Your task to perform on an android device: Search for Mexican restaurants on Maps Image 0: 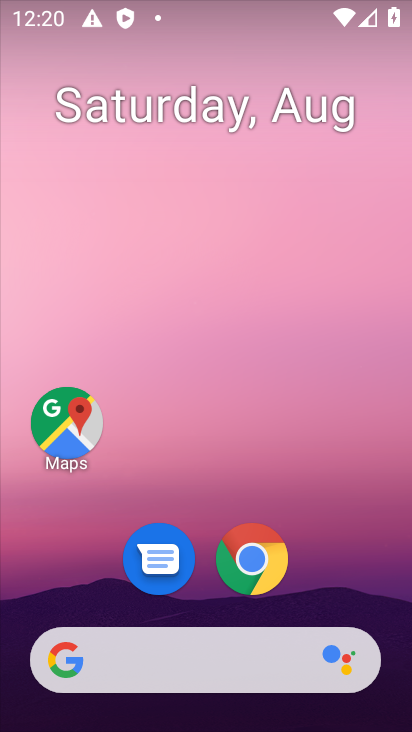
Step 0: click (80, 425)
Your task to perform on an android device: Search for Mexican restaurants on Maps Image 1: 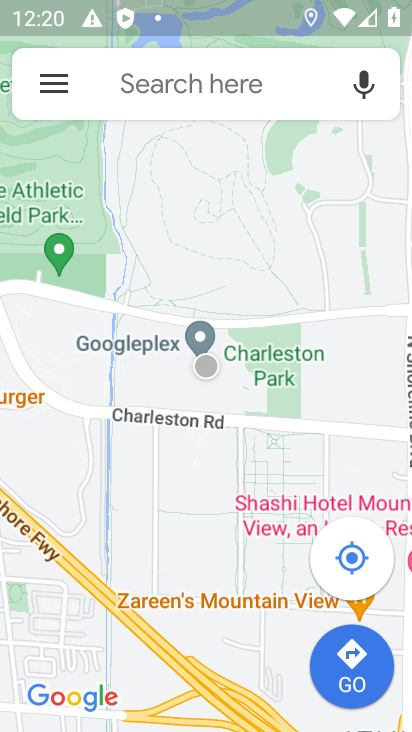
Step 1: click (200, 71)
Your task to perform on an android device: Search for Mexican restaurants on Maps Image 2: 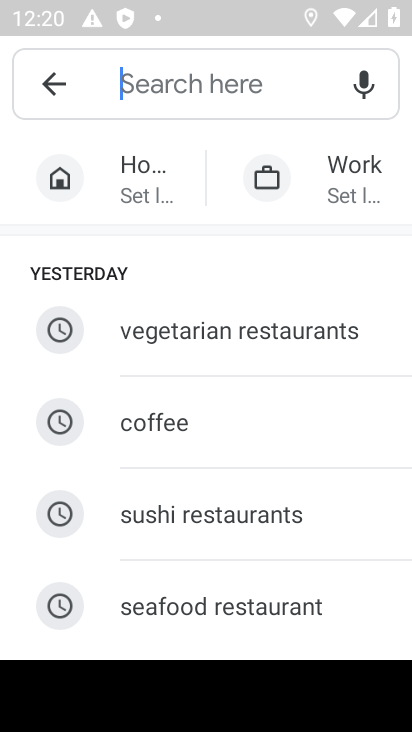
Step 2: type "Mexican restaurants"
Your task to perform on an android device: Search for Mexican restaurants on Maps Image 3: 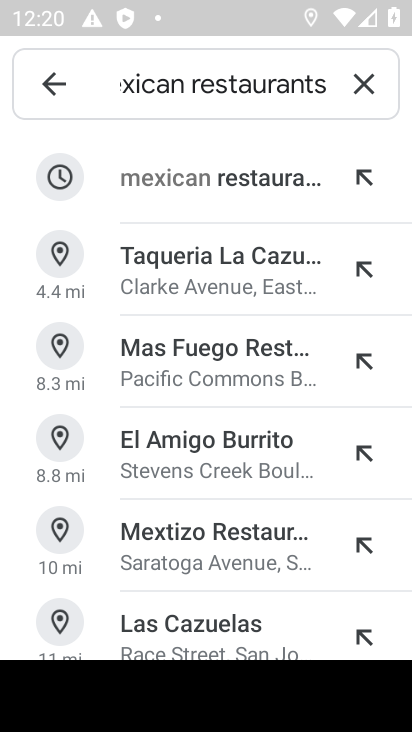
Step 3: click (255, 175)
Your task to perform on an android device: Search for Mexican restaurants on Maps Image 4: 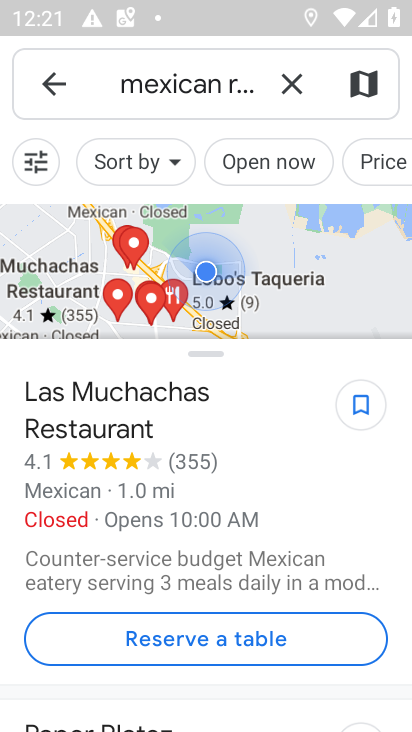
Step 4: task complete